Your task to perform on an android device: Show me recent news Image 0: 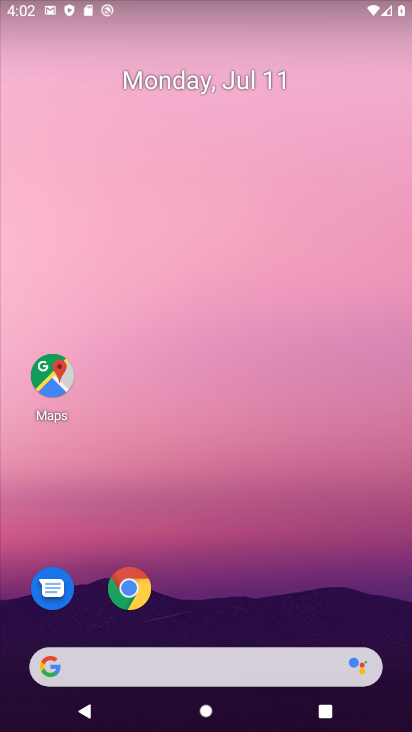
Step 0: drag from (275, 529) to (196, 137)
Your task to perform on an android device: Show me recent news Image 1: 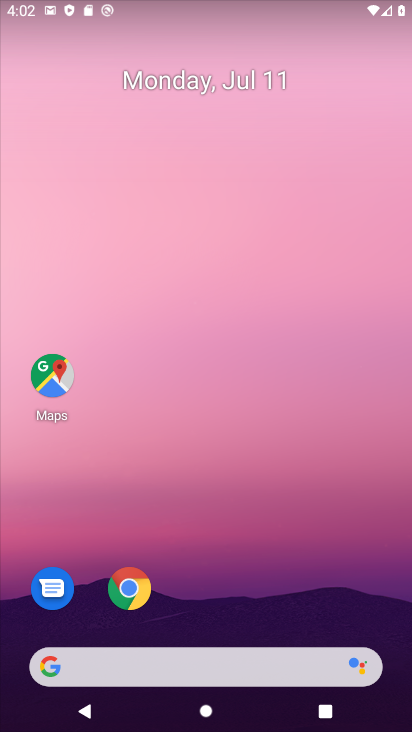
Step 1: drag from (264, 633) to (138, 139)
Your task to perform on an android device: Show me recent news Image 2: 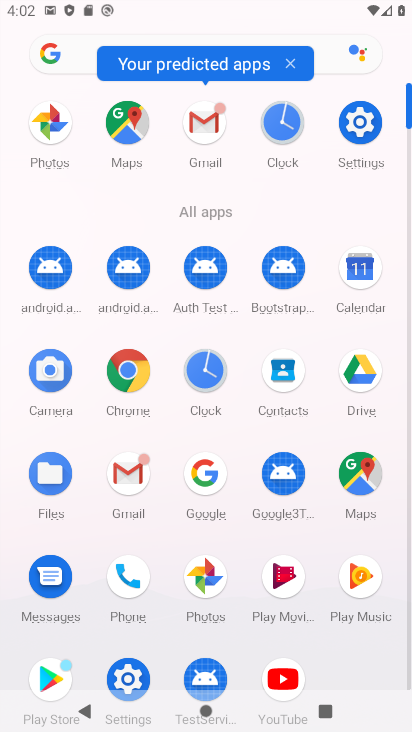
Step 2: click (361, 118)
Your task to perform on an android device: Show me recent news Image 3: 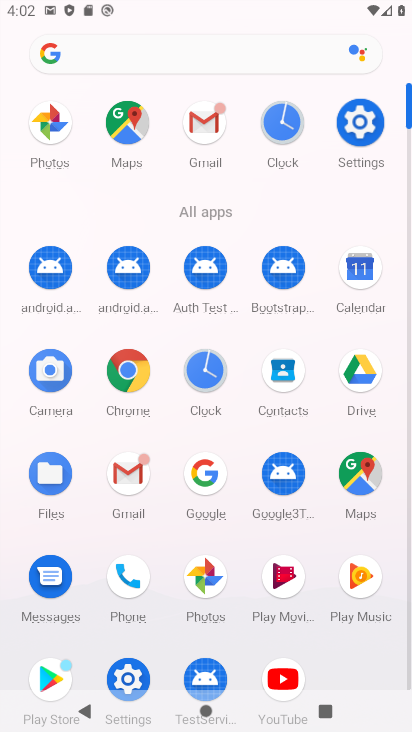
Step 3: click (361, 118)
Your task to perform on an android device: Show me recent news Image 4: 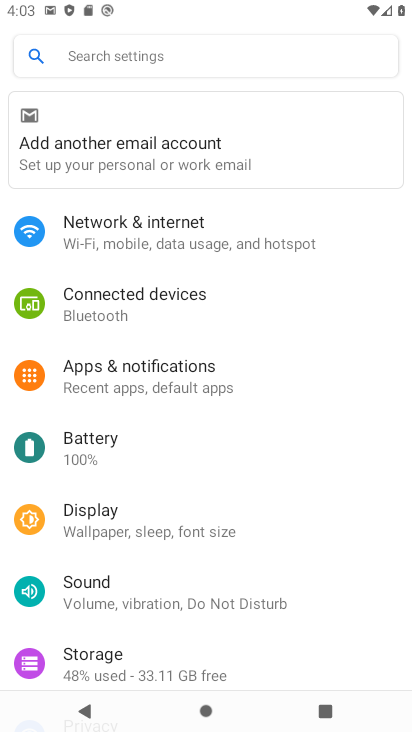
Step 4: press back button
Your task to perform on an android device: Show me recent news Image 5: 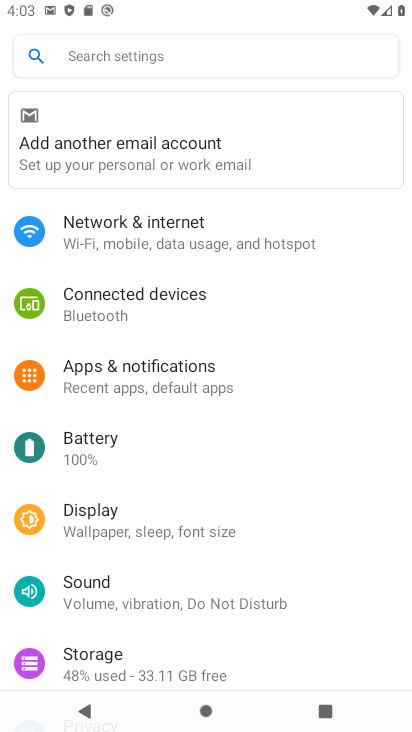
Step 5: press back button
Your task to perform on an android device: Show me recent news Image 6: 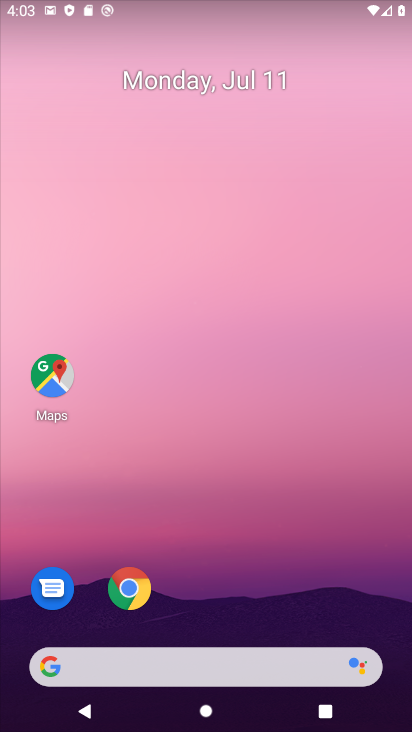
Step 6: drag from (274, 651) to (222, 0)
Your task to perform on an android device: Show me recent news Image 7: 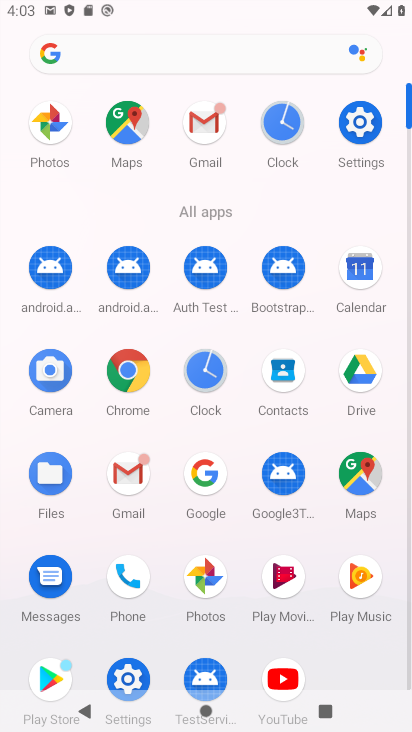
Step 7: click (128, 370)
Your task to perform on an android device: Show me recent news Image 8: 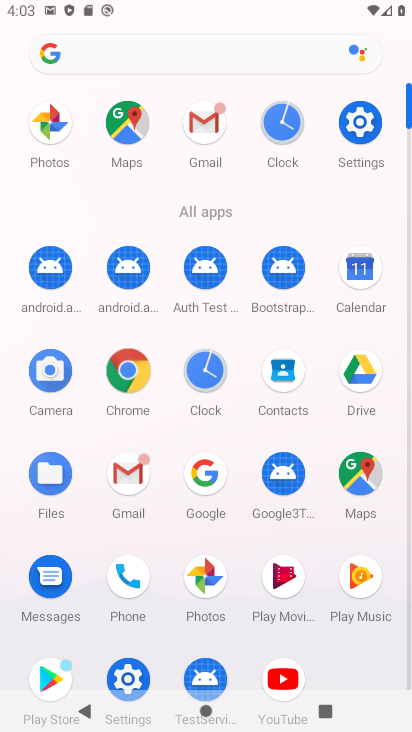
Step 8: click (129, 370)
Your task to perform on an android device: Show me recent news Image 9: 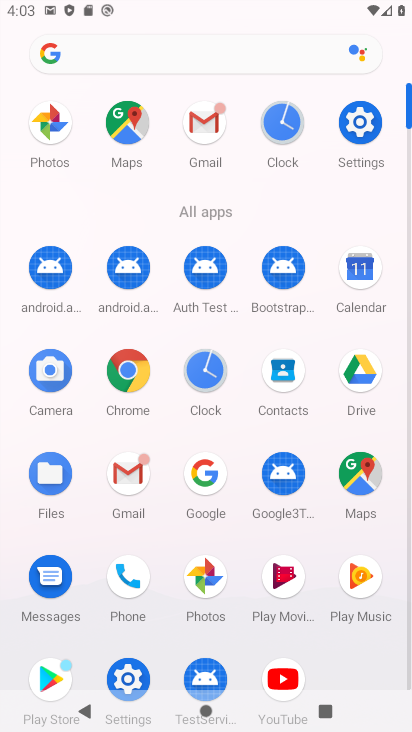
Step 9: click (129, 372)
Your task to perform on an android device: Show me recent news Image 10: 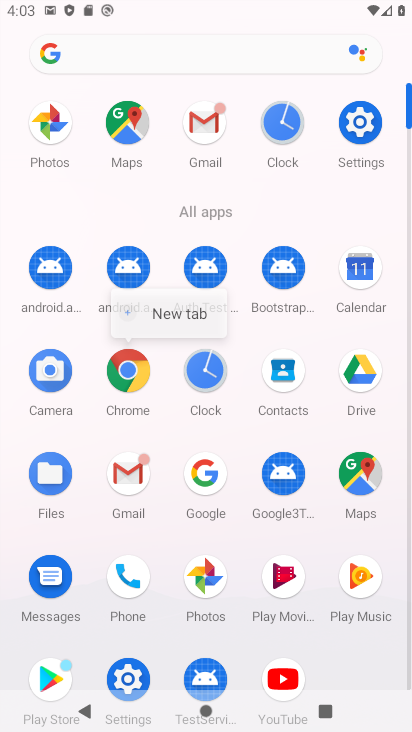
Step 10: click (129, 372)
Your task to perform on an android device: Show me recent news Image 11: 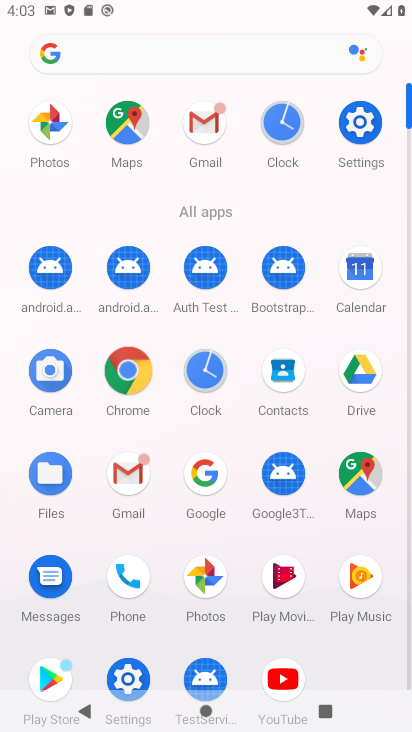
Step 11: click (131, 373)
Your task to perform on an android device: Show me recent news Image 12: 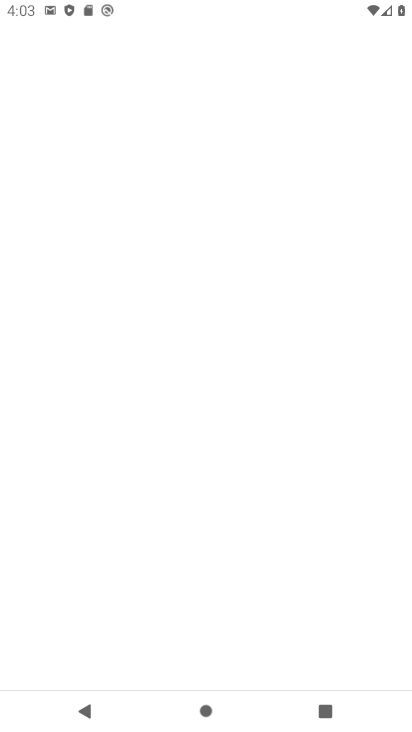
Step 12: click (131, 373)
Your task to perform on an android device: Show me recent news Image 13: 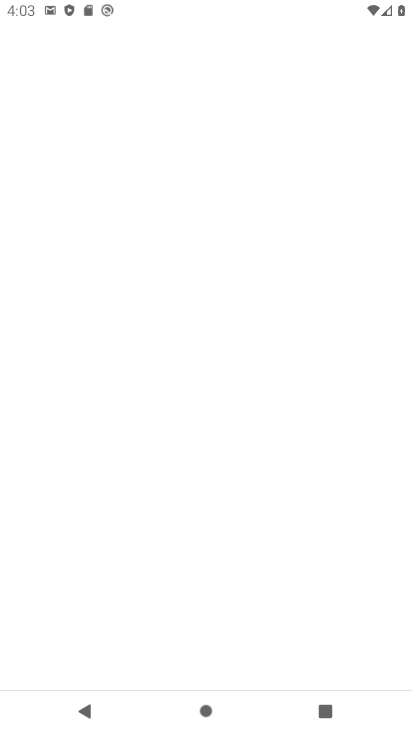
Step 13: click (130, 374)
Your task to perform on an android device: Show me recent news Image 14: 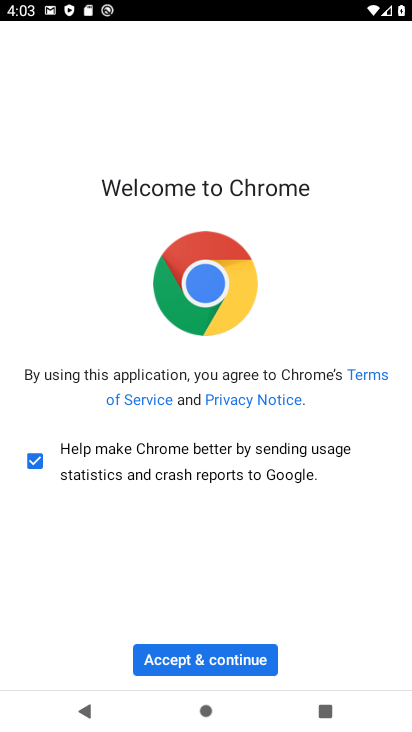
Step 14: click (248, 653)
Your task to perform on an android device: Show me recent news Image 15: 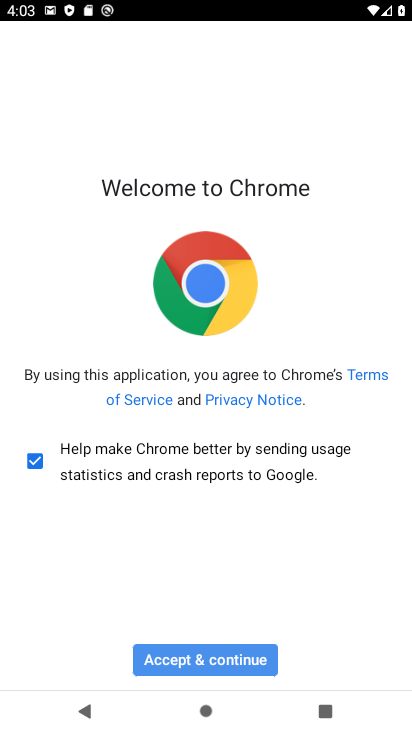
Step 15: click (253, 652)
Your task to perform on an android device: Show me recent news Image 16: 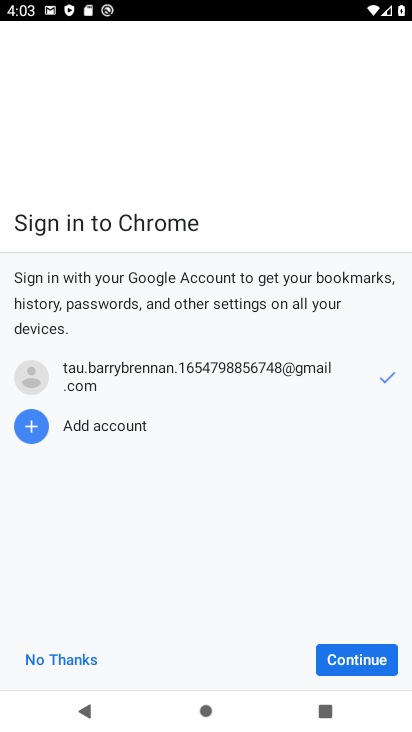
Step 16: click (253, 652)
Your task to perform on an android device: Show me recent news Image 17: 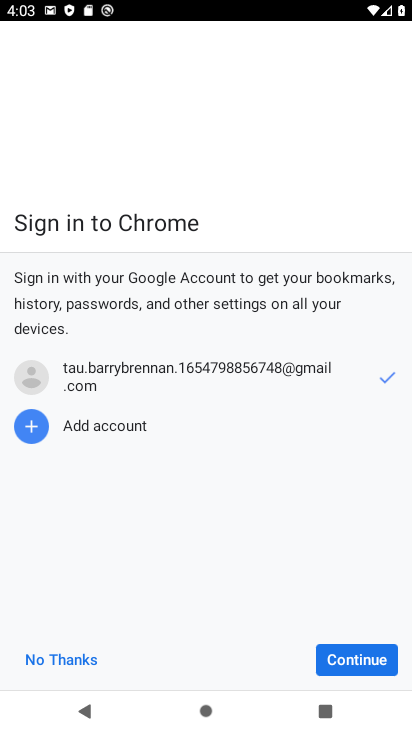
Step 17: click (356, 652)
Your task to perform on an android device: Show me recent news Image 18: 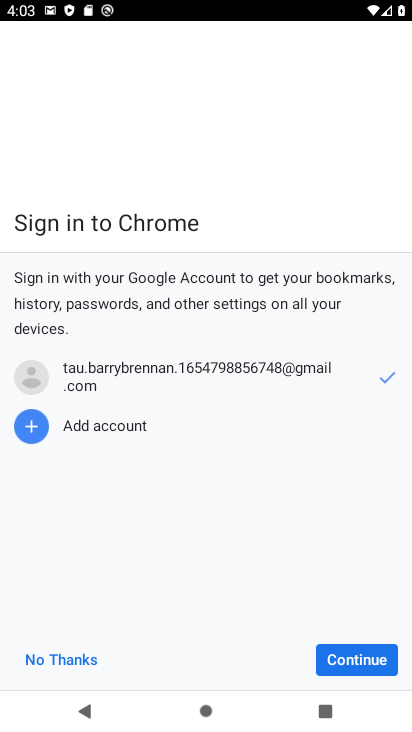
Step 18: click (359, 653)
Your task to perform on an android device: Show me recent news Image 19: 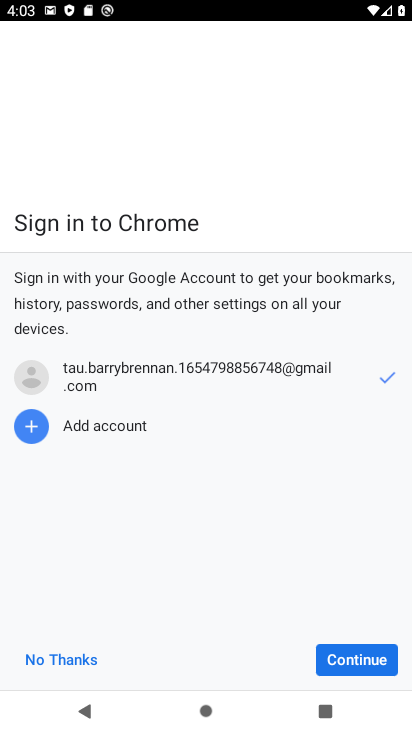
Step 19: drag from (359, 653) to (321, 641)
Your task to perform on an android device: Show me recent news Image 20: 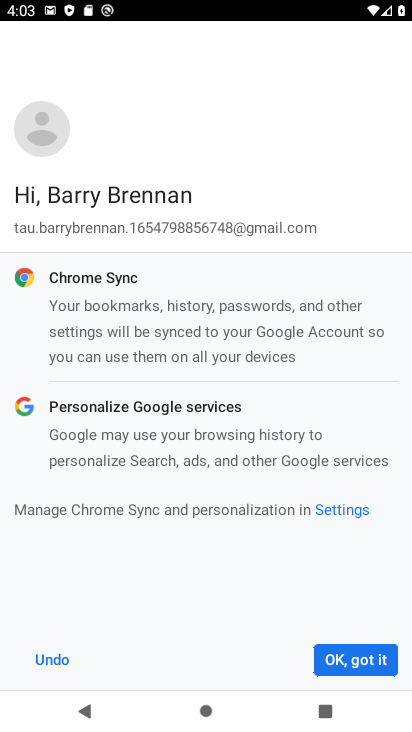
Step 20: click (364, 656)
Your task to perform on an android device: Show me recent news Image 21: 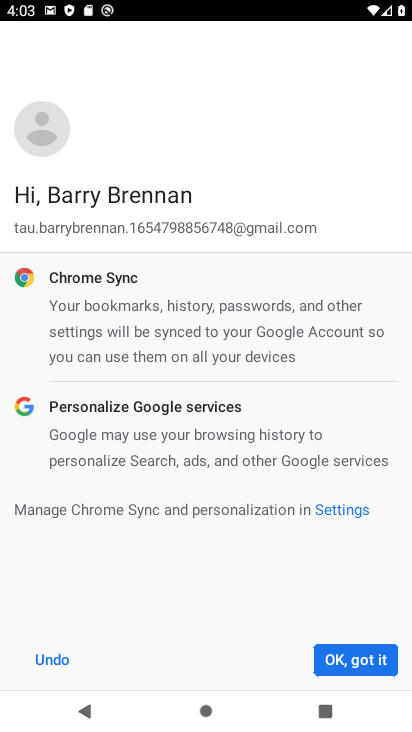
Step 21: click (363, 657)
Your task to perform on an android device: Show me recent news Image 22: 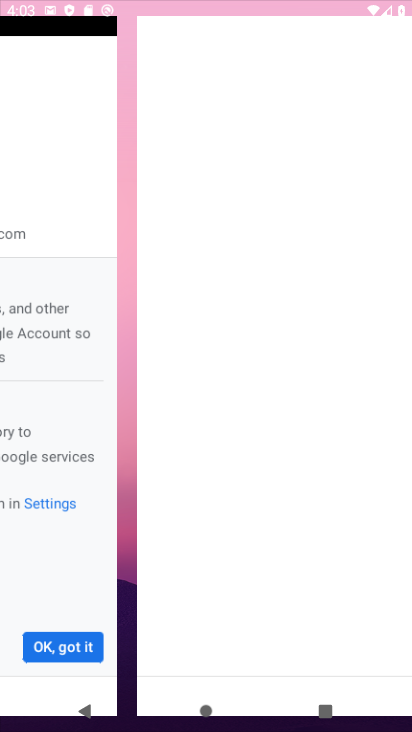
Step 22: click (371, 653)
Your task to perform on an android device: Show me recent news Image 23: 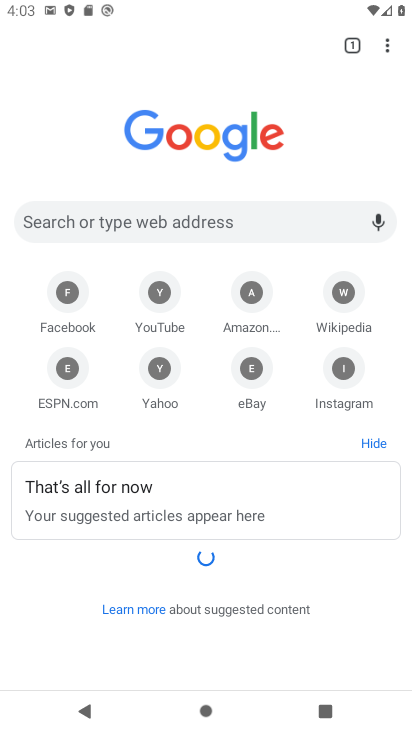
Step 23: click (64, 223)
Your task to perform on an android device: Show me recent news Image 24: 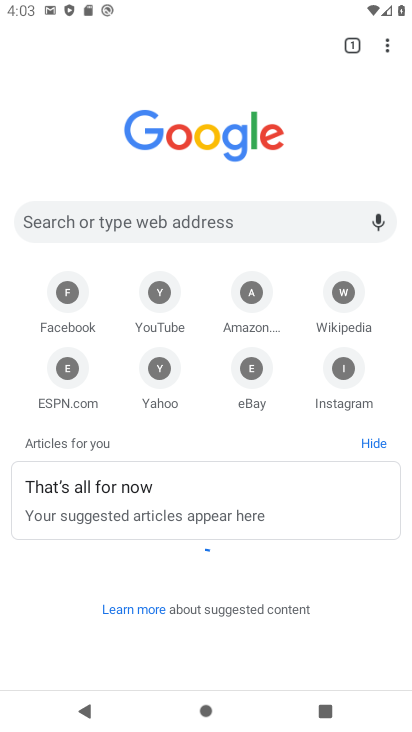
Step 24: click (64, 223)
Your task to perform on an android device: Show me recent news Image 25: 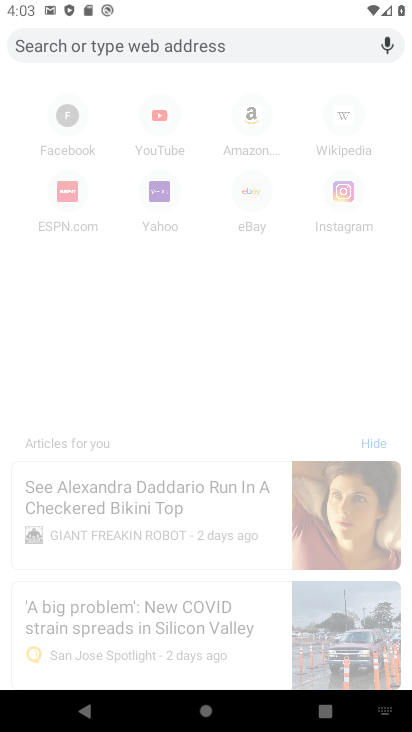
Step 25: type "recent news"
Your task to perform on an android device: Show me recent news Image 26: 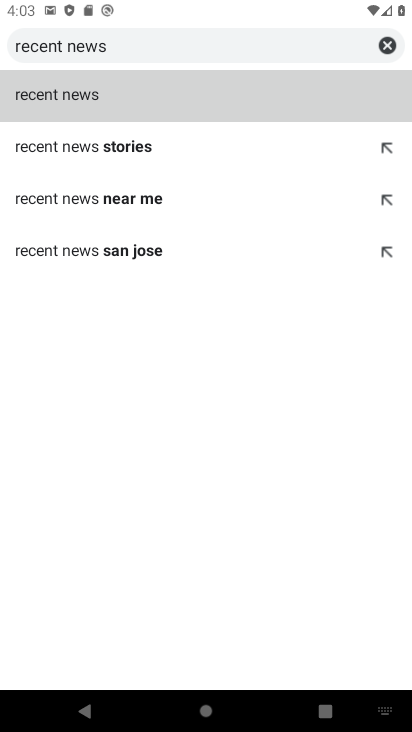
Step 26: click (76, 95)
Your task to perform on an android device: Show me recent news Image 27: 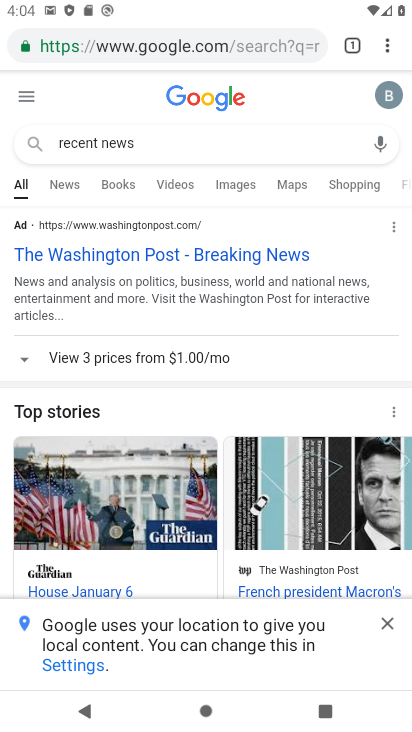
Step 27: task complete